Your task to perform on an android device: empty trash in google photos Image 0: 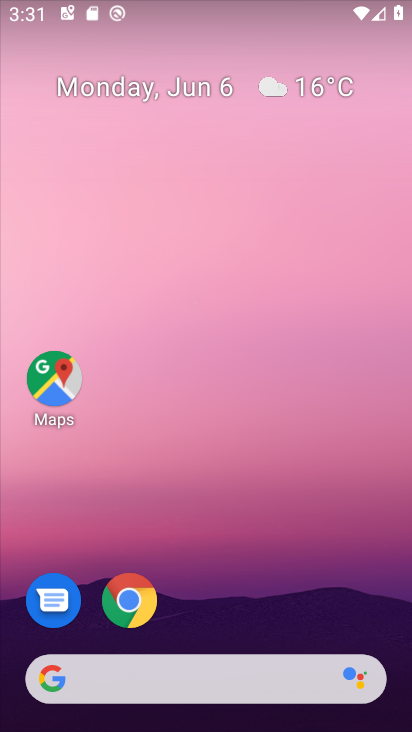
Step 0: drag from (125, 65) to (99, 19)
Your task to perform on an android device: empty trash in google photos Image 1: 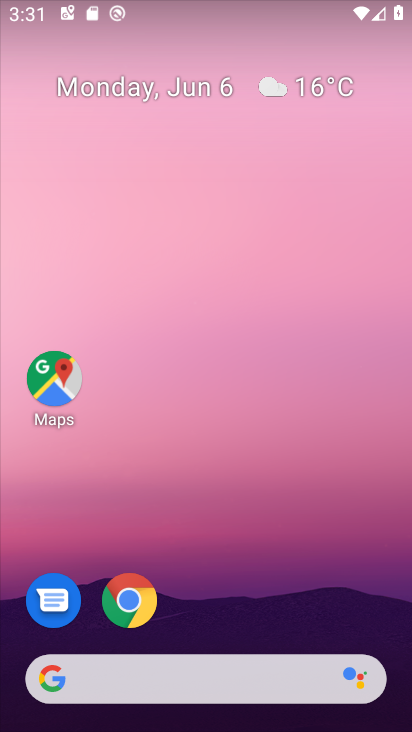
Step 1: click (136, 136)
Your task to perform on an android device: empty trash in google photos Image 2: 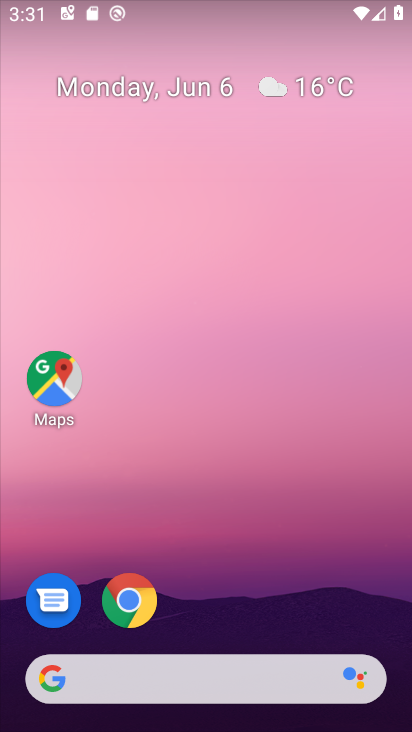
Step 2: drag from (245, 590) to (122, 1)
Your task to perform on an android device: empty trash in google photos Image 3: 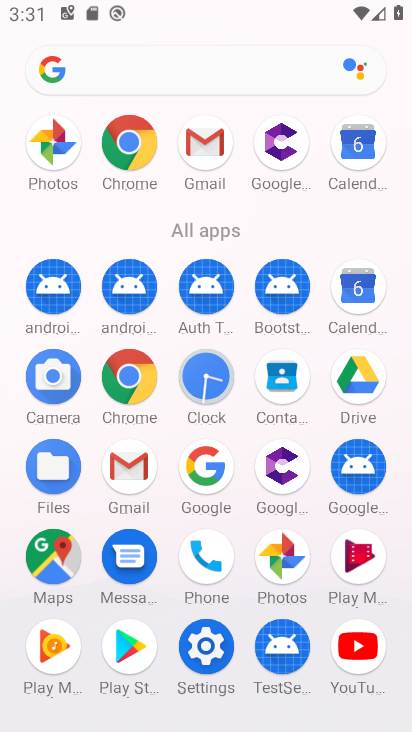
Step 3: click (292, 566)
Your task to perform on an android device: empty trash in google photos Image 4: 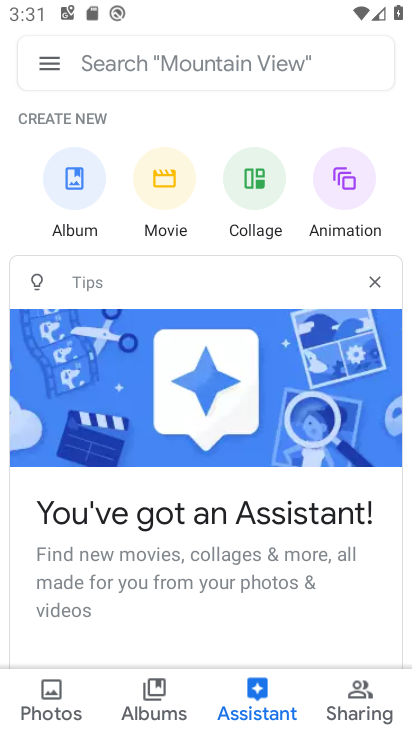
Step 4: click (56, 62)
Your task to perform on an android device: empty trash in google photos Image 5: 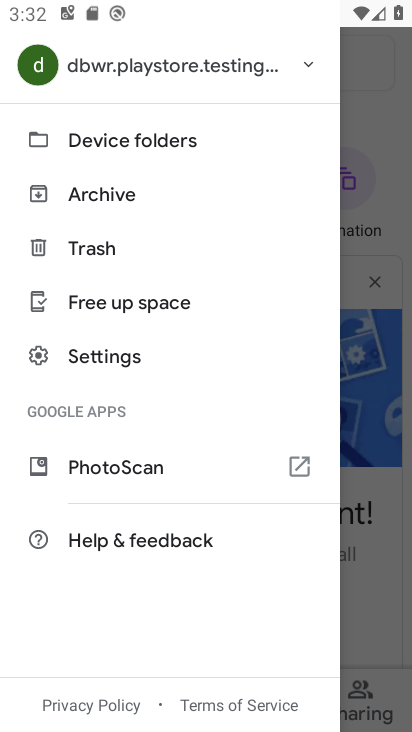
Step 5: click (94, 258)
Your task to perform on an android device: empty trash in google photos Image 6: 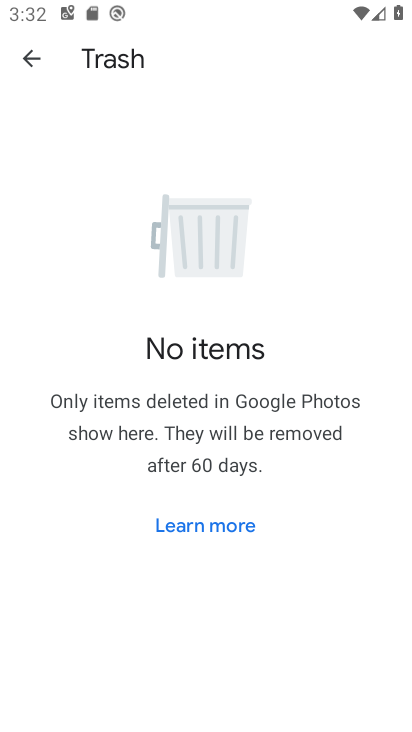
Step 6: task complete